Your task to perform on an android device: turn on translation in the chrome app Image 0: 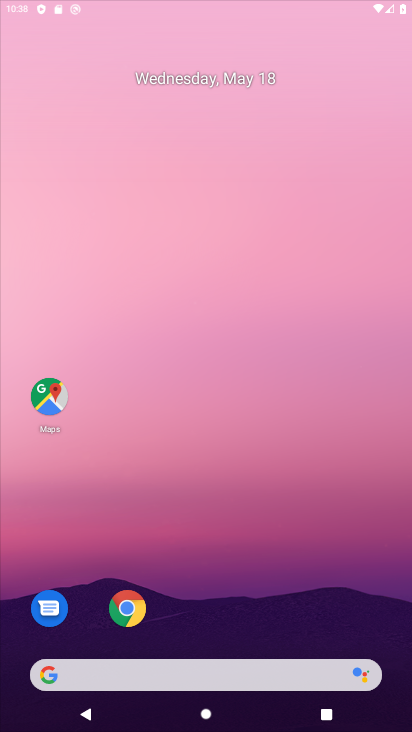
Step 0: press home button
Your task to perform on an android device: turn on translation in the chrome app Image 1: 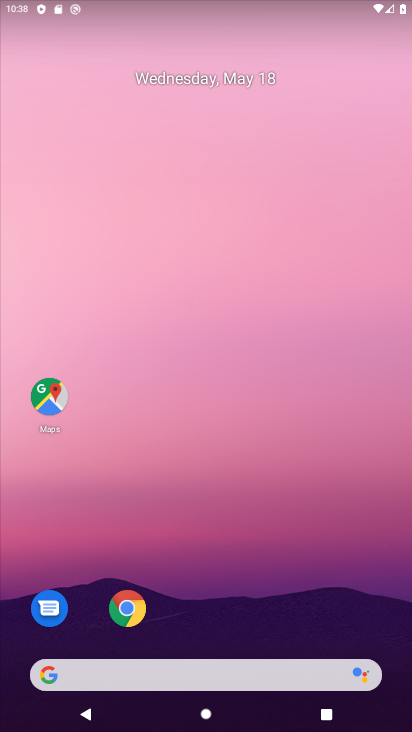
Step 1: click (128, 591)
Your task to perform on an android device: turn on translation in the chrome app Image 2: 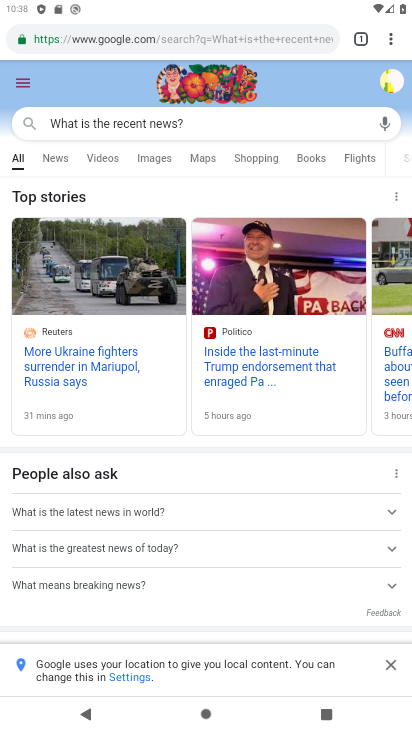
Step 2: drag from (385, 23) to (281, 420)
Your task to perform on an android device: turn on translation in the chrome app Image 3: 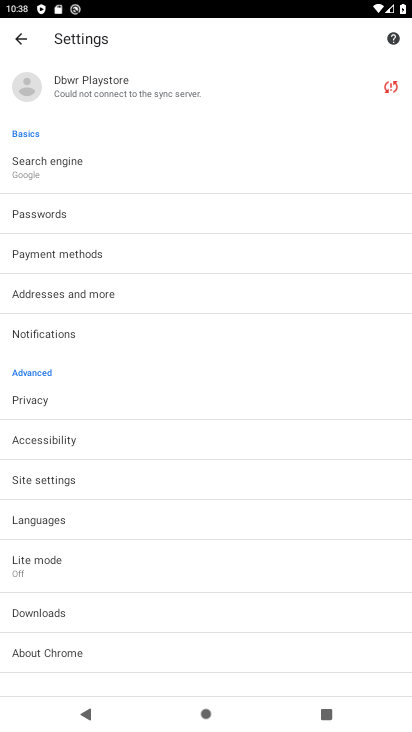
Step 3: click (63, 525)
Your task to perform on an android device: turn on translation in the chrome app Image 4: 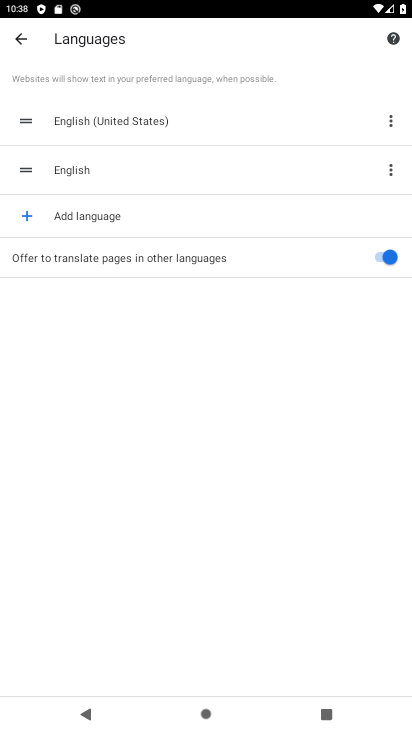
Step 4: task complete